Your task to perform on an android device: Open location settings Image 0: 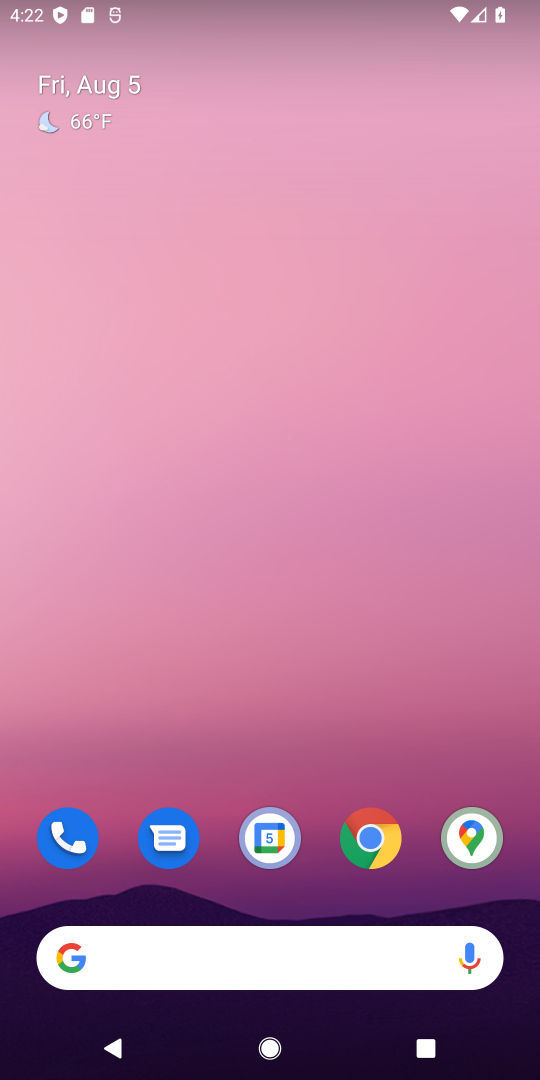
Step 0: drag from (202, 937) to (230, 448)
Your task to perform on an android device: Open location settings Image 1: 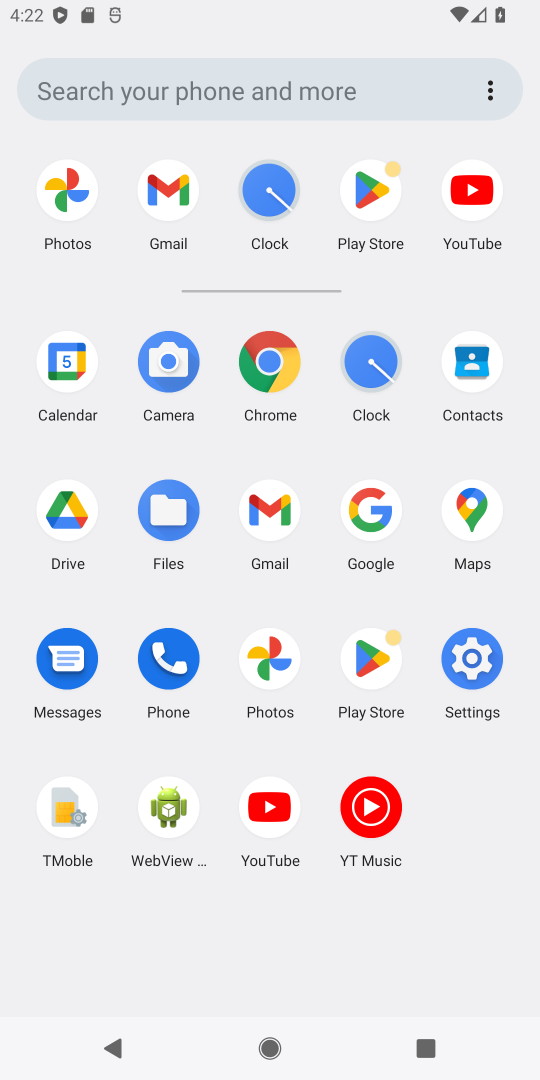
Step 1: click (470, 668)
Your task to perform on an android device: Open location settings Image 2: 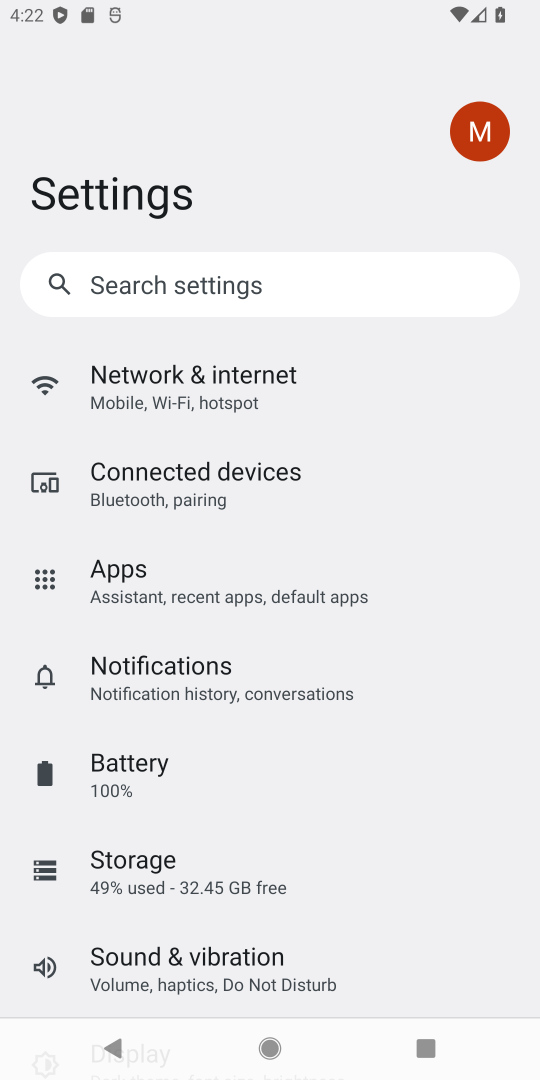
Step 2: drag from (121, 879) to (304, 141)
Your task to perform on an android device: Open location settings Image 3: 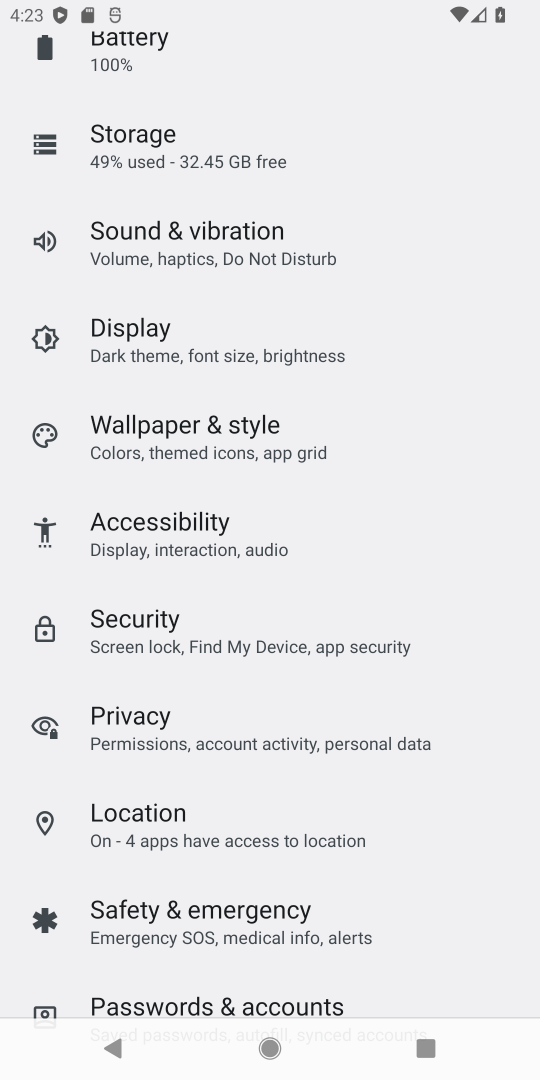
Step 3: click (200, 810)
Your task to perform on an android device: Open location settings Image 4: 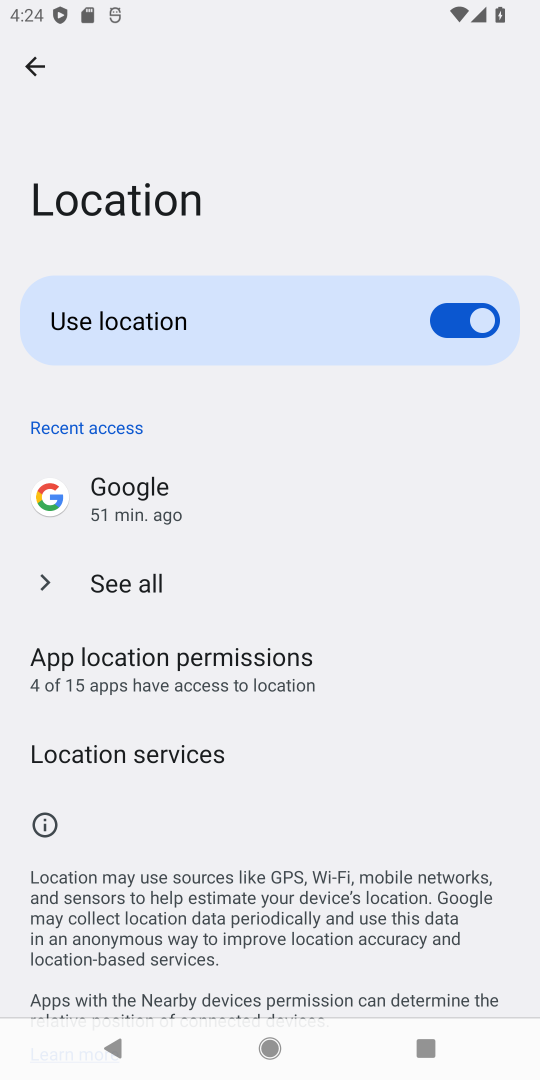
Step 4: task complete